Your task to perform on an android device: turn pop-ups on in chrome Image 0: 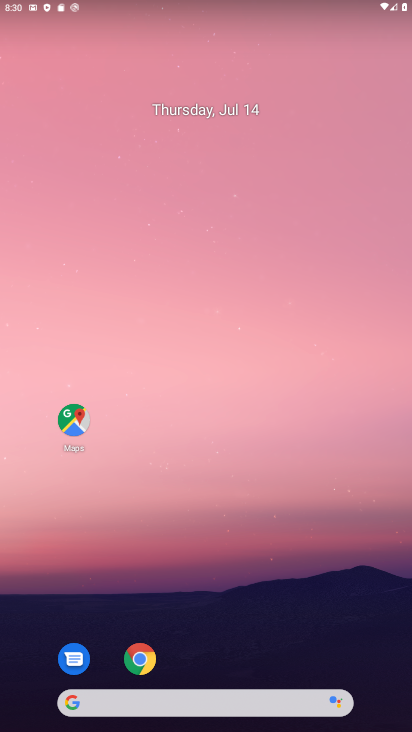
Step 0: press home button
Your task to perform on an android device: turn pop-ups on in chrome Image 1: 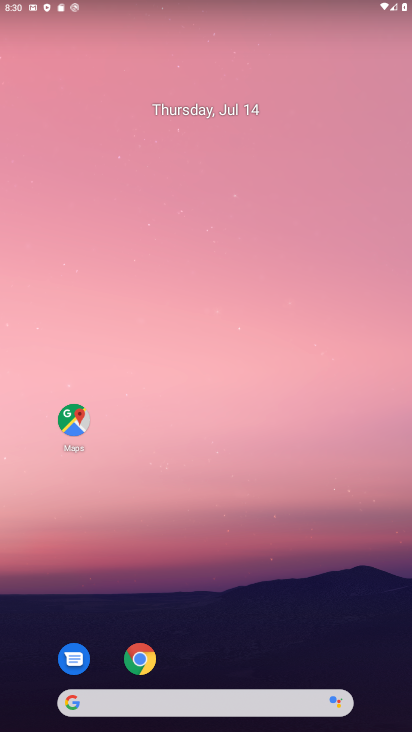
Step 1: click (152, 652)
Your task to perform on an android device: turn pop-ups on in chrome Image 2: 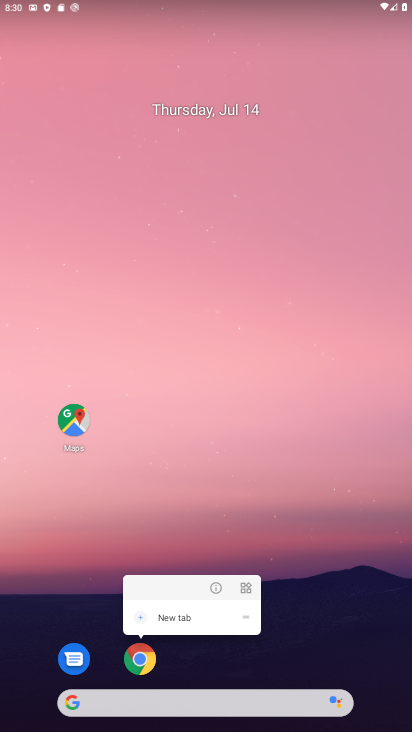
Step 2: click (147, 656)
Your task to perform on an android device: turn pop-ups on in chrome Image 3: 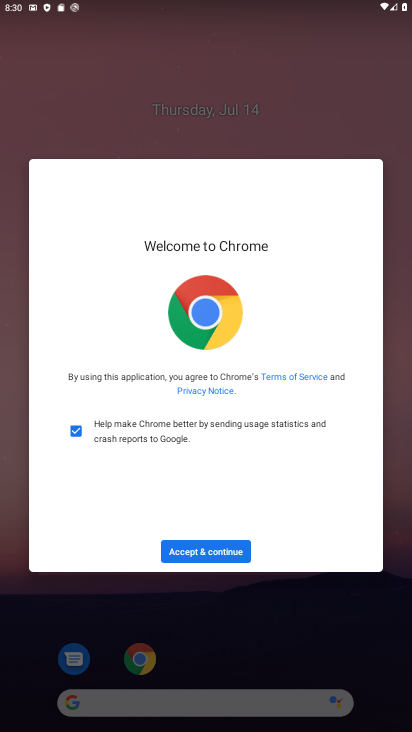
Step 3: click (205, 552)
Your task to perform on an android device: turn pop-ups on in chrome Image 4: 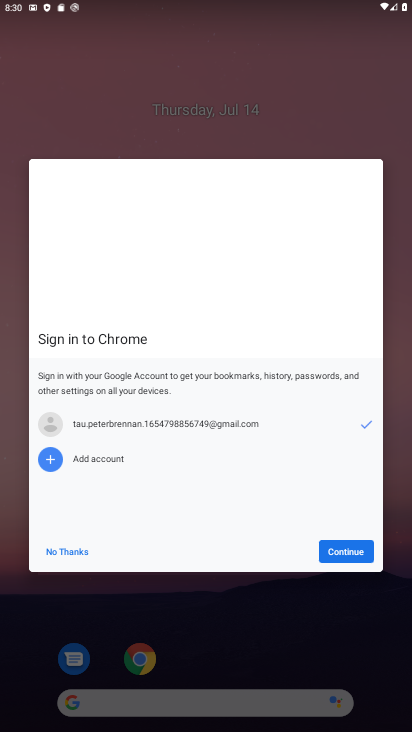
Step 4: click (354, 549)
Your task to perform on an android device: turn pop-ups on in chrome Image 5: 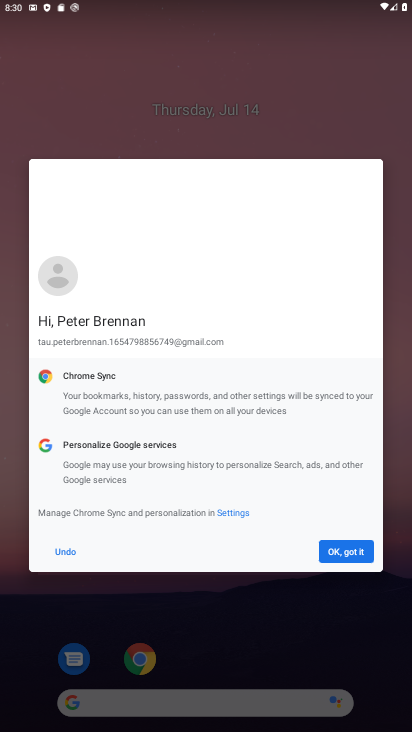
Step 5: click (352, 549)
Your task to perform on an android device: turn pop-ups on in chrome Image 6: 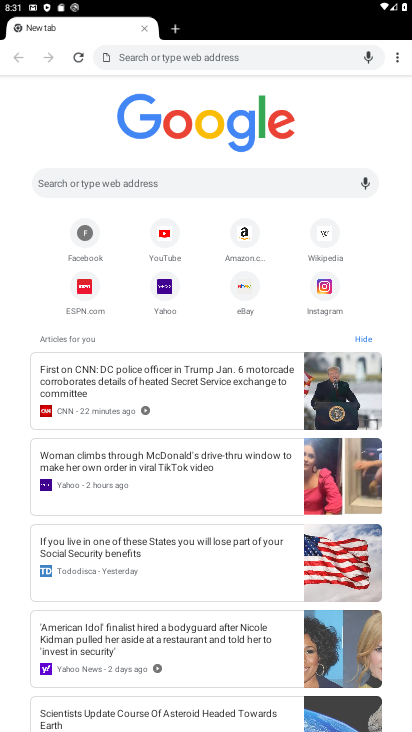
Step 6: drag from (400, 49) to (326, 266)
Your task to perform on an android device: turn pop-ups on in chrome Image 7: 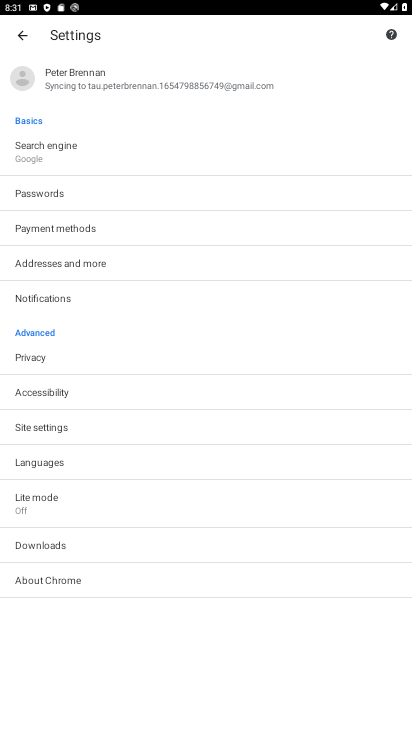
Step 7: click (62, 436)
Your task to perform on an android device: turn pop-ups on in chrome Image 8: 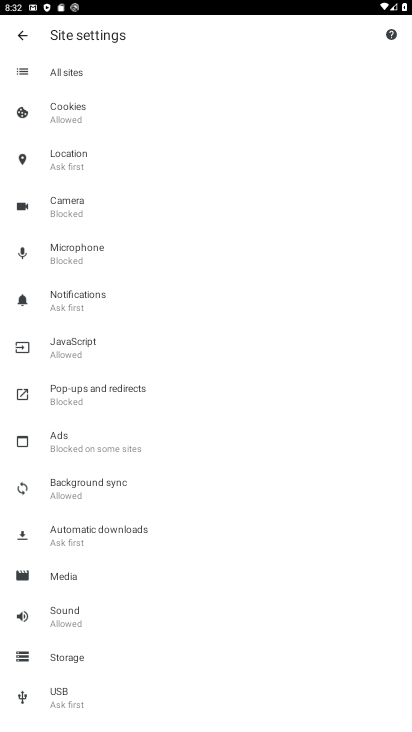
Step 8: click (144, 390)
Your task to perform on an android device: turn pop-ups on in chrome Image 9: 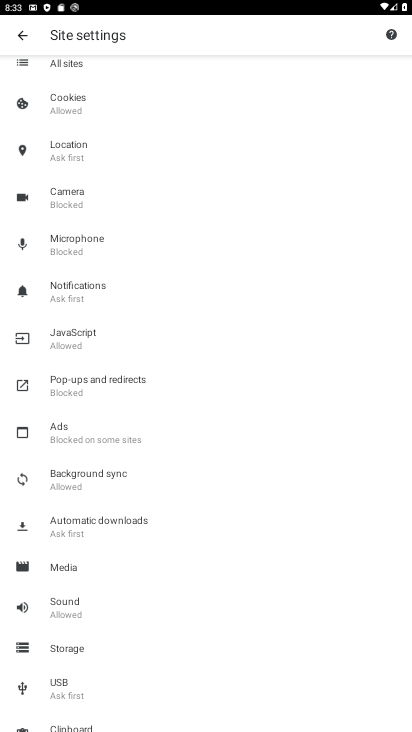
Step 9: click (83, 386)
Your task to perform on an android device: turn pop-ups on in chrome Image 10: 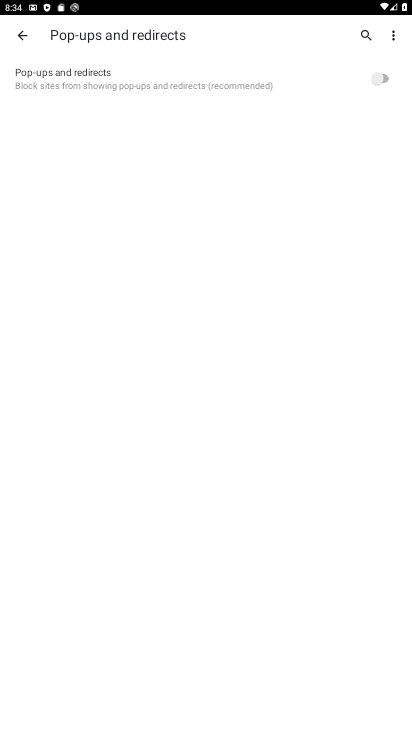
Step 10: click (311, 69)
Your task to perform on an android device: turn pop-ups on in chrome Image 11: 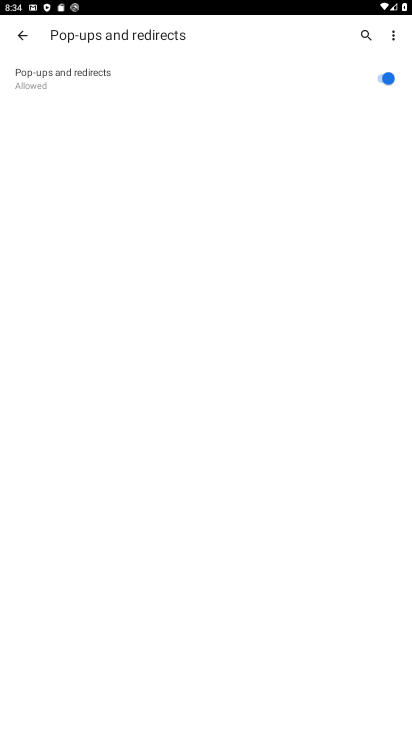
Step 11: task complete